Your task to perform on an android device: Is it going to rain tomorrow? Image 0: 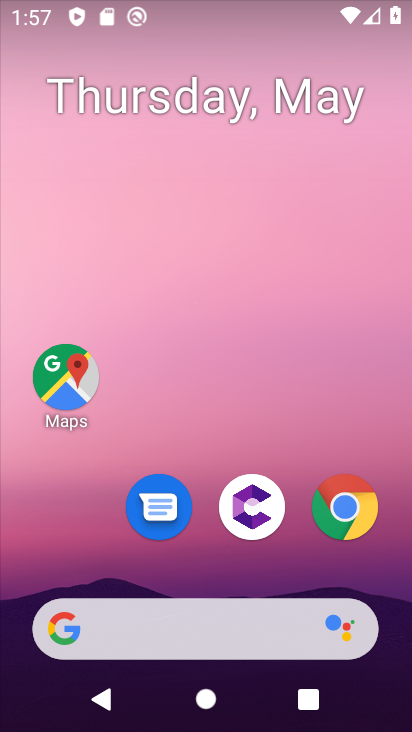
Step 0: click (222, 633)
Your task to perform on an android device: Is it going to rain tomorrow? Image 1: 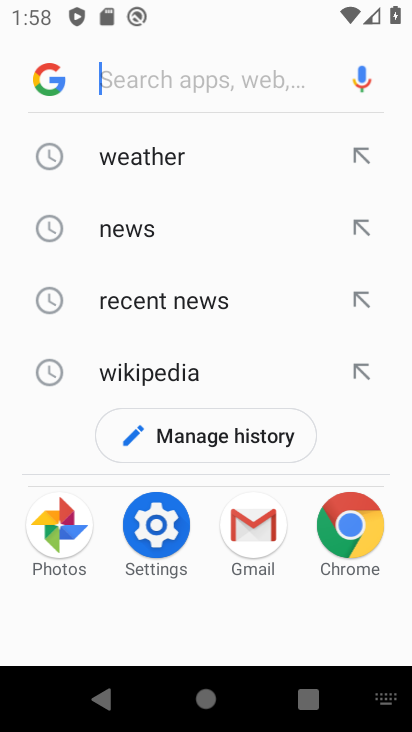
Step 1: type "Is it going to rain tomorrow?"
Your task to perform on an android device: Is it going to rain tomorrow? Image 2: 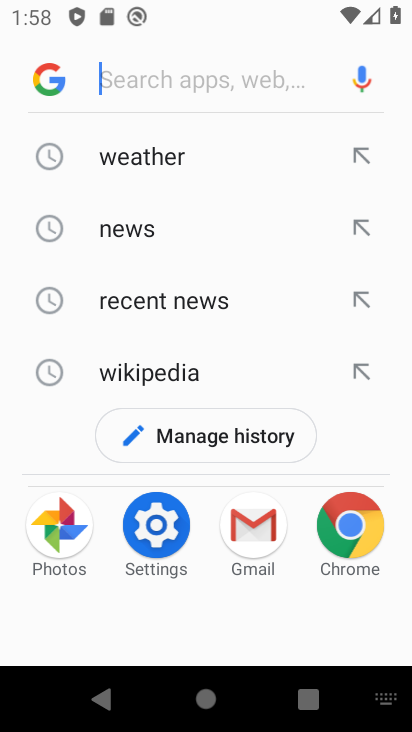
Step 2: click (256, 81)
Your task to perform on an android device: Is it going to rain tomorrow? Image 3: 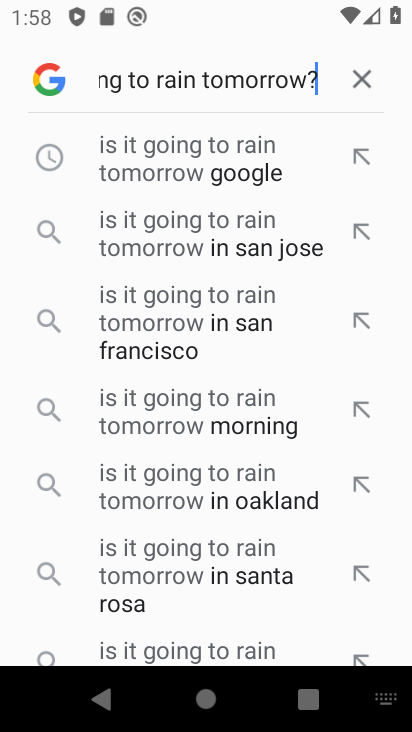
Step 3: click (192, 80)
Your task to perform on an android device: Is it going to rain tomorrow? Image 4: 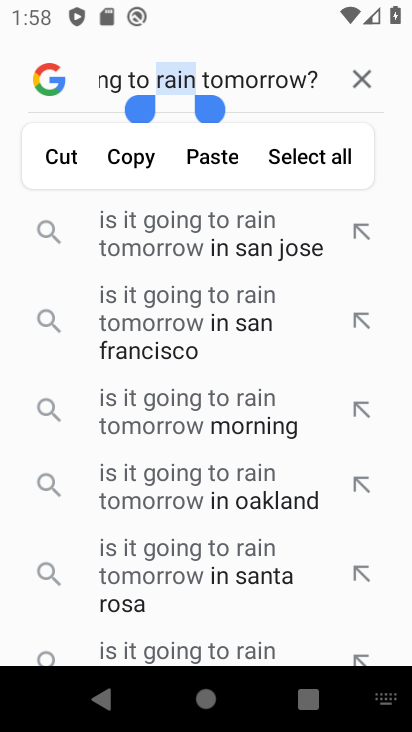
Step 4: click (253, 76)
Your task to perform on an android device: Is it going to rain tomorrow? Image 5: 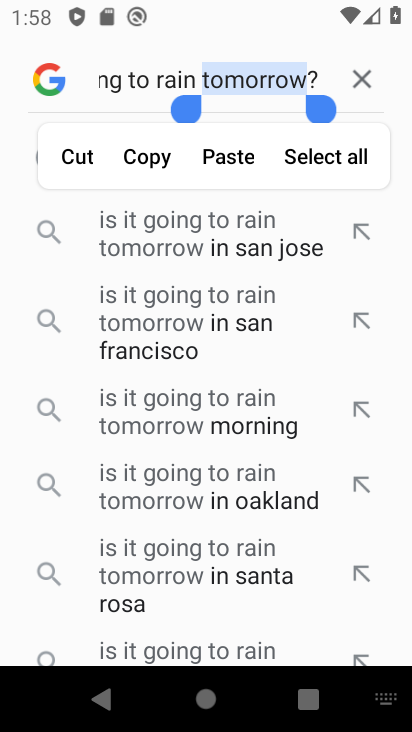
Step 5: click (113, 80)
Your task to perform on an android device: Is it going to rain tomorrow? Image 6: 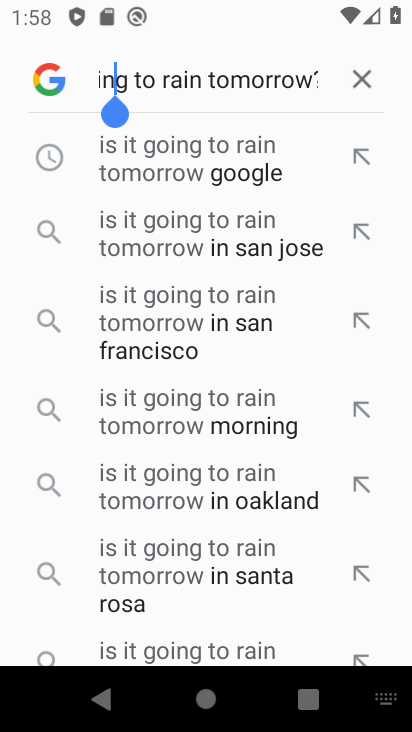
Step 6: click (167, 162)
Your task to perform on an android device: Is it going to rain tomorrow? Image 7: 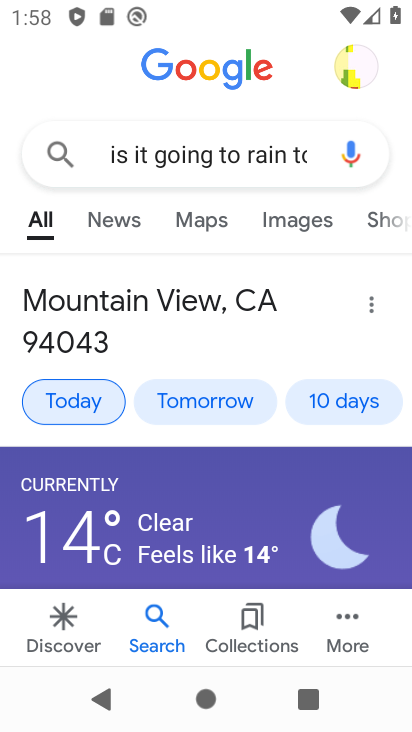
Step 7: task complete